Your task to perform on an android device: turn off picture-in-picture Image 0: 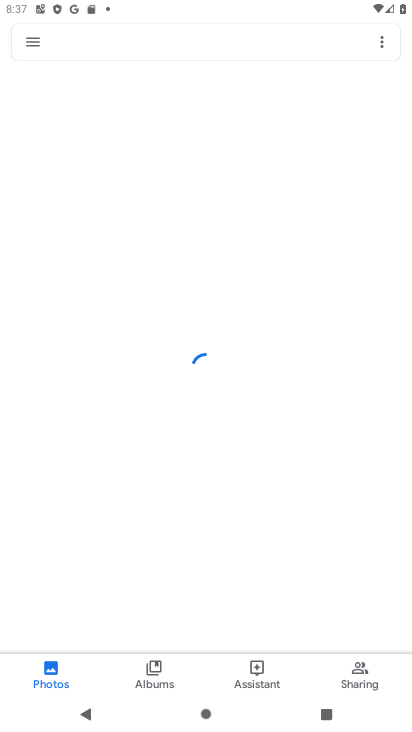
Step 0: press home button
Your task to perform on an android device: turn off picture-in-picture Image 1: 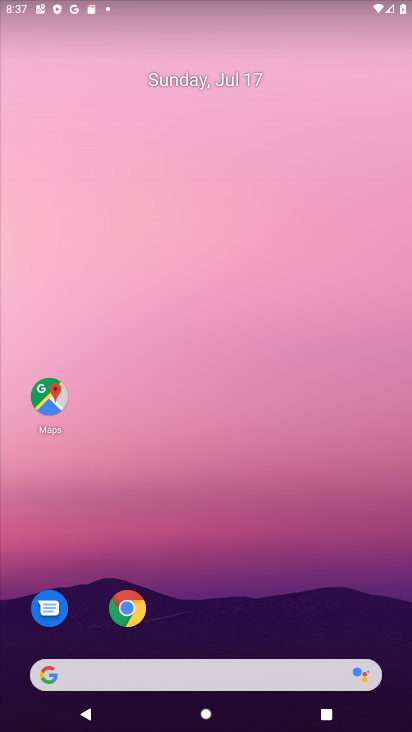
Step 1: click (119, 603)
Your task to perform on an android device: turn off picture-in-picture Image 2: 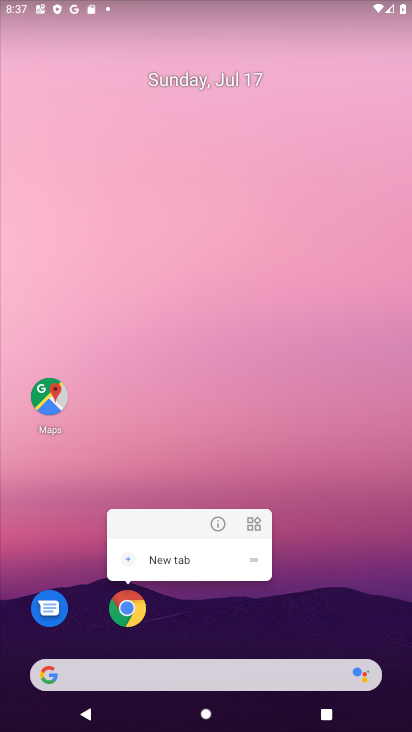
Step 2: click (220, 521)
Your task to perform on an android device: turn off picture-in-picture Image 3: 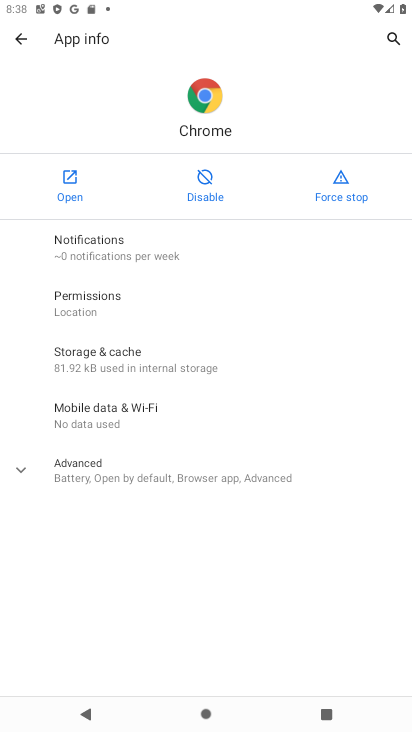
Step 3: click (100, 470)
Your task to perform on an android device: turn off picture-in-picture Image 4: 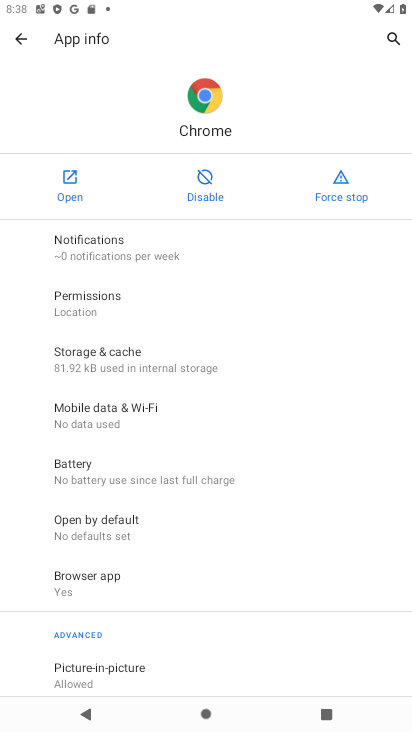
Step 4: drag from (147, 672) to (156, 537)
Your task to perform on an android device: turn off picture-in-picture Image 5: 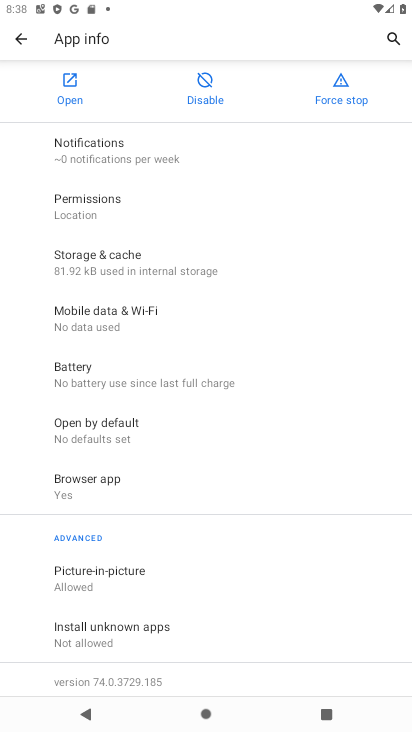
Step 5: click (116, 580)
Your task to perform on an android device: turn off picture-in-picture Image 6: 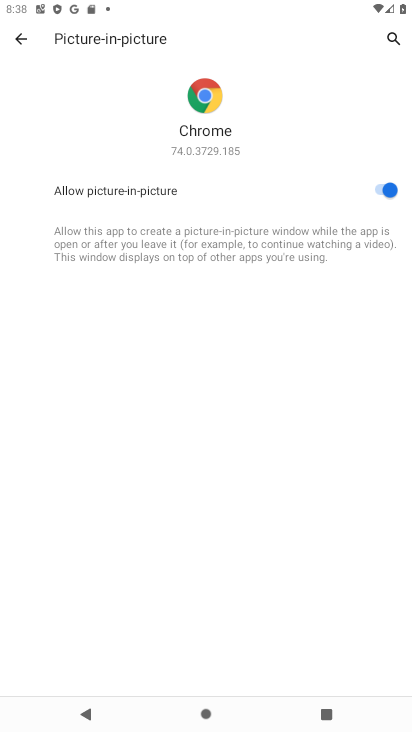
Step 6: click (380, 189)
Your task to perform on an android device: turn off picture-in-picture Image 7: 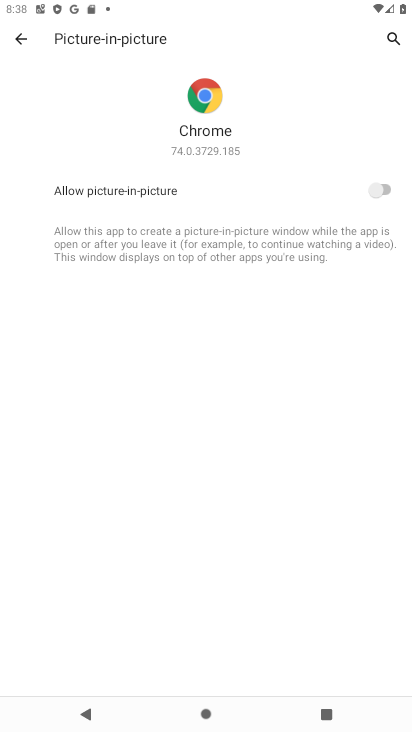
Step 7: task complete